Your task to perform on an android device: find photos in the google photos app Image 0: 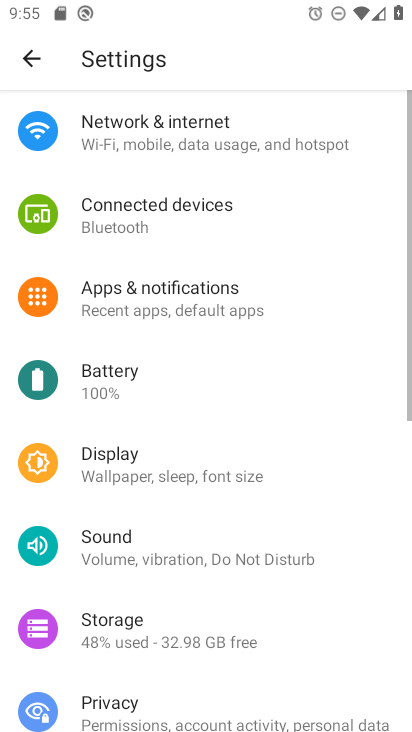
Step 0: press home button
Your task to perform on an android device: find photos in the google photos app Image 1: 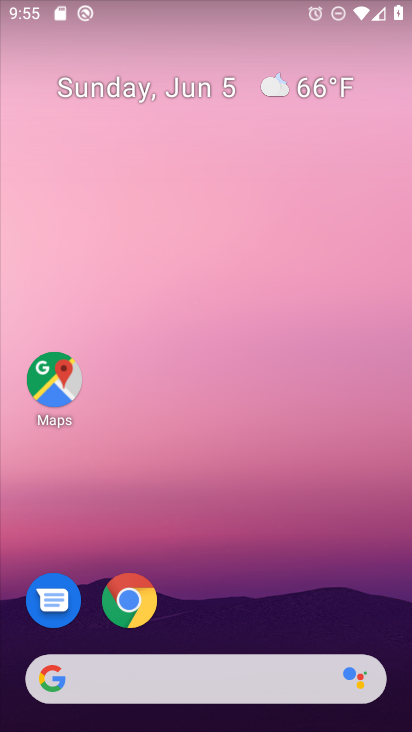
Step 1: drag from (410, 648) to (321, 21)
Your task to perform on an android device: find photos in the google photos app Image 2: 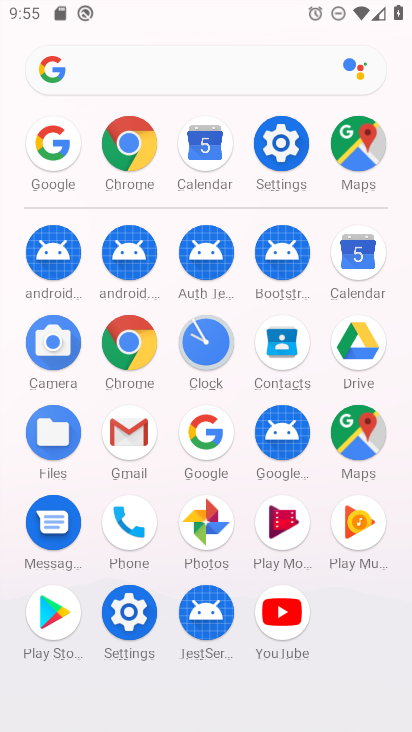
Step 2: click (213, 530)
Your task to perform on an android device: find photos in the google photos app Image 3: 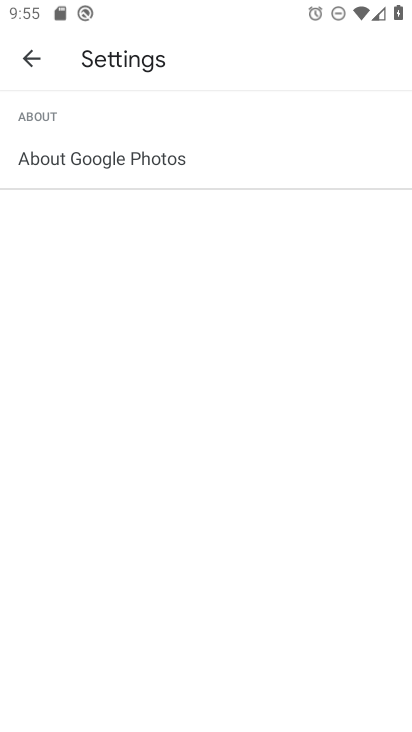
Step 3: task complete